Your task to perform on an android device: What's the weather going to be this weekend? Image 0: 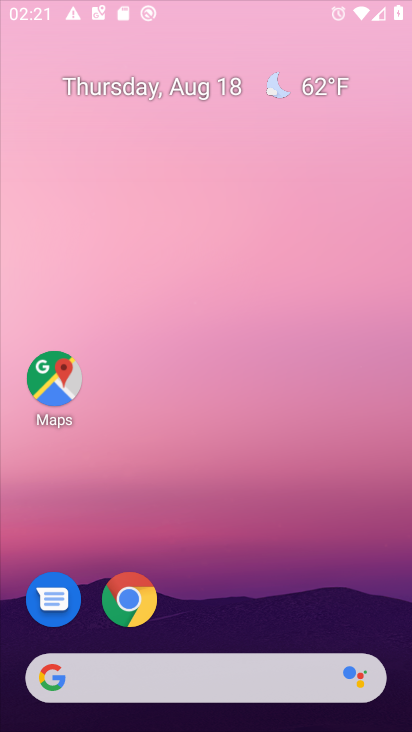
Step 0: press home button
Your task to perform on an android device: What's the weather going to be this weekend? Image 1: 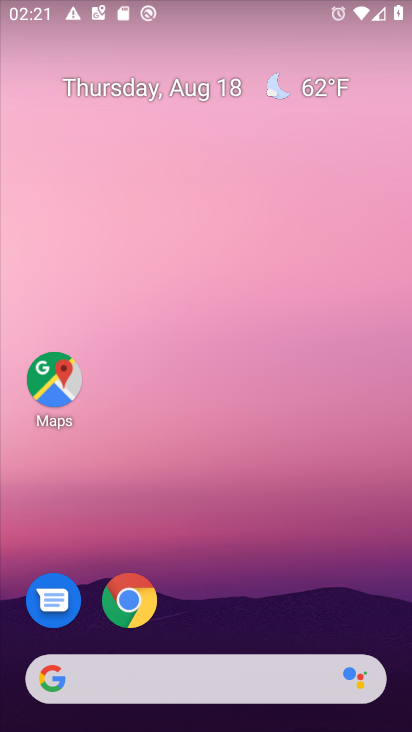
Step 1: click (42, 683)
Your task to perform on an android device: What's the weather going to be this weekend? Image 2: 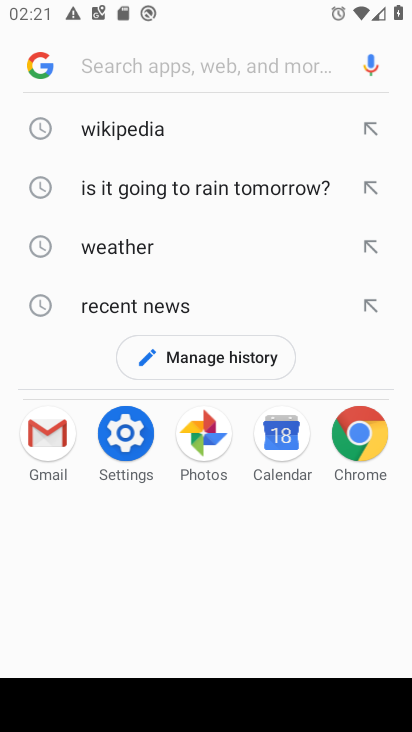
Step 2: type "What's the weather going to be this weekend?"
Your task to perform on an android device: What's the weather going to be this weekend? Image 3: 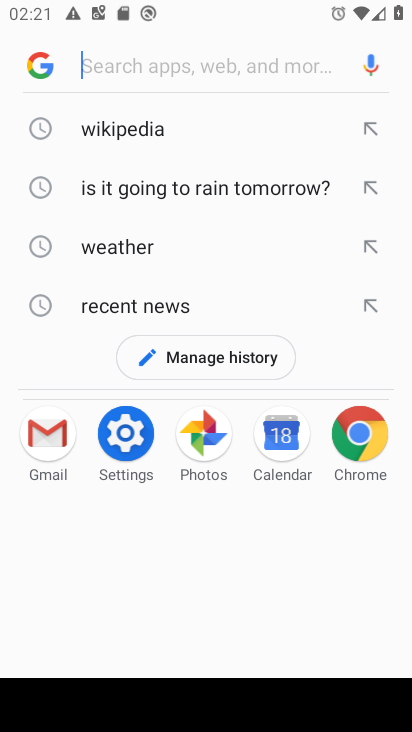
Step 3: click (95, 57)
Your task to perform on an android device: What's the weather going to be this weekend? Image 4: 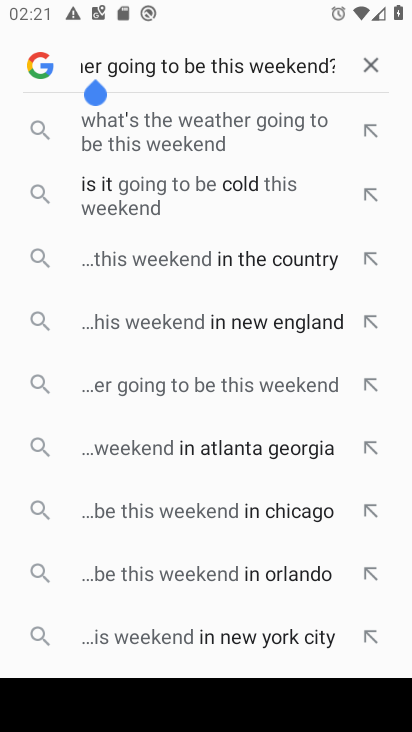
Step 4: press enter
Your task to perform on an android device: What's the weather going to be this weekend? Image 5: 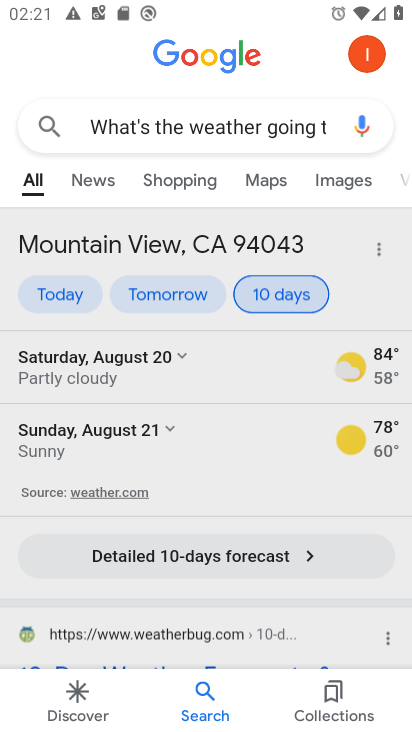
Step 5: task complete